Your task to perform on an android device: Open the calendar and show me this week's events? Image 0: 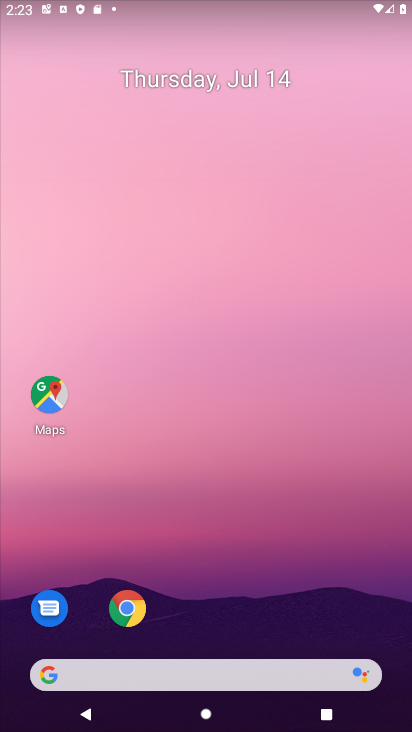
Step 0: drag from (385, 639) to (340, 95)
Your task to perform on an android device: Open the calendar and show me this week's events? Image 1: 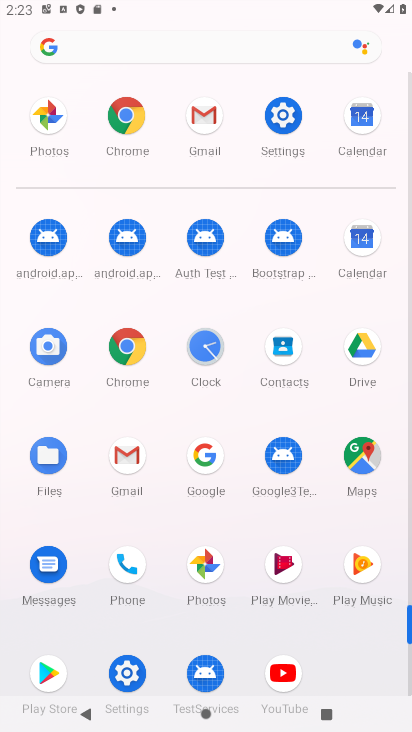
Step 1: click (362, 241)
Your task to perform on an android device: Open the calendar and show me this week's events? Image 2: 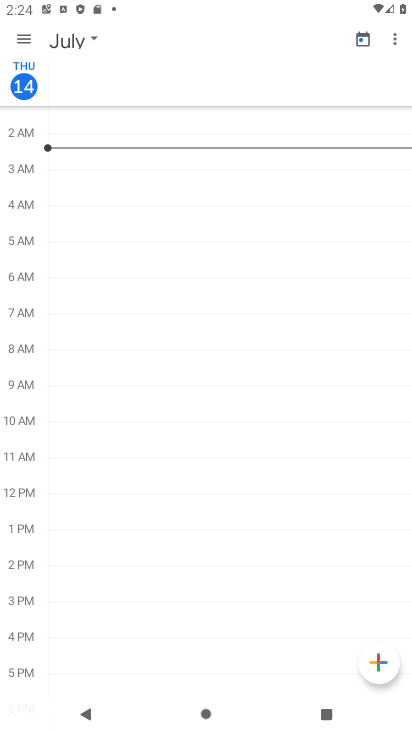
Step 2: click (24, 33)
Your task to perform on an android device: Open the calendar and show me this week's events? Image 3: 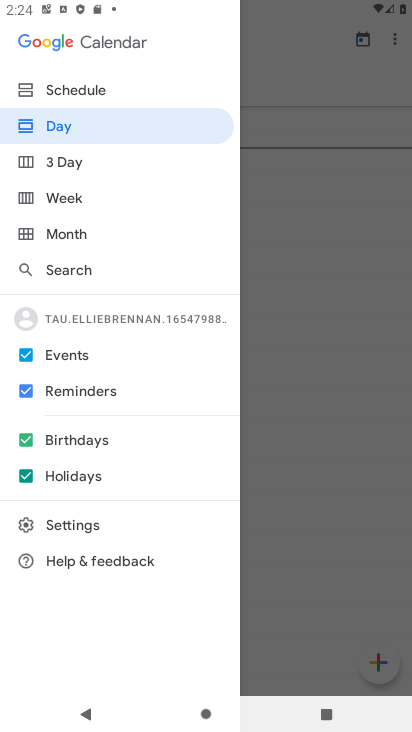
Step 3: click (58, 194)
Your task to perform on an android device: Open the calendar and show me this week's events? Image 4: 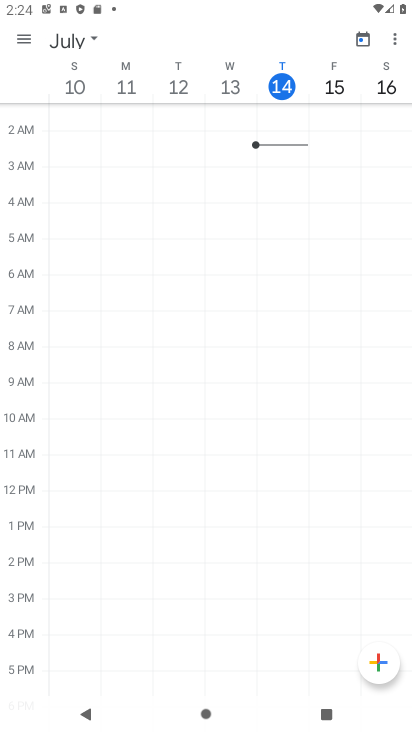
Step 4: task complete